Your task to perform on an android device: toggle sleep mode Image 0: 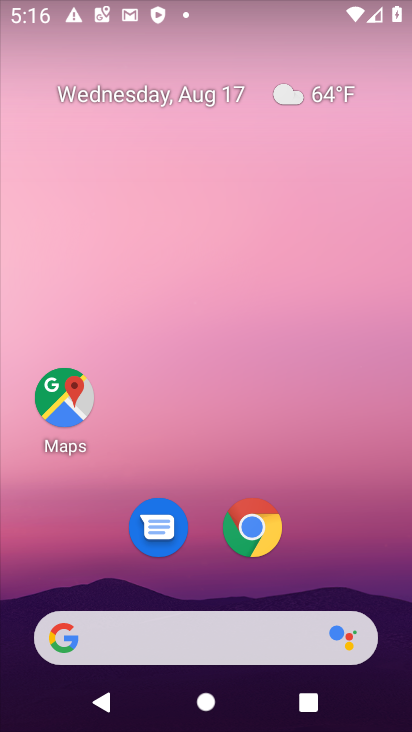
Step 0: drag from (180, 572) to (155, 170)
Your task to perform on an android device: toggle sleep mode Image 1: 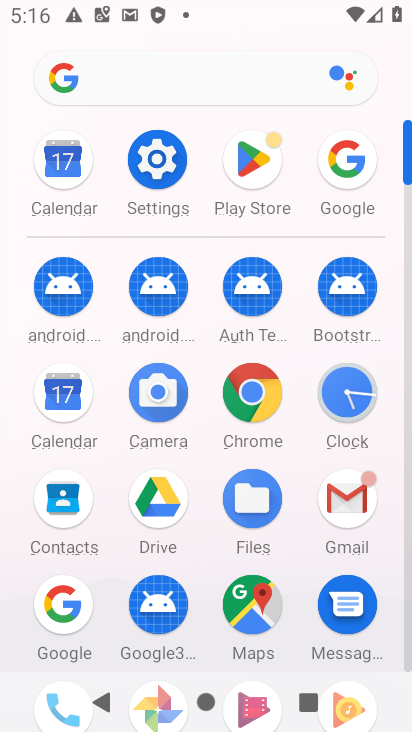
Step 1: click (146, 165)
Your task to perform on an android device: toggle sleep mode Image 2: 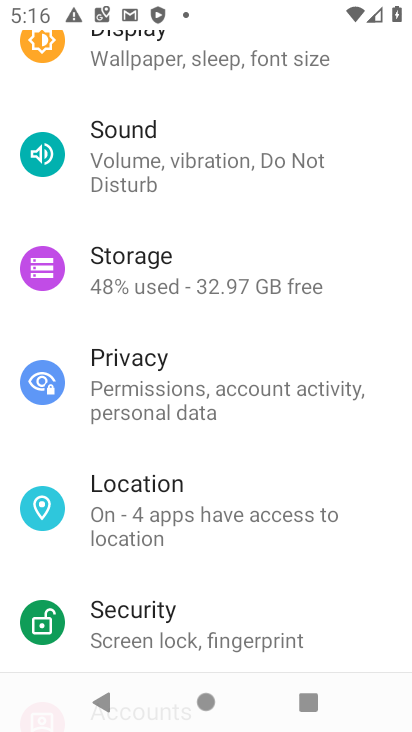
Step 2: drag from (165, 121) to (162, 578)
Your task to perform on an android device: toggle sleep mode Image 3: 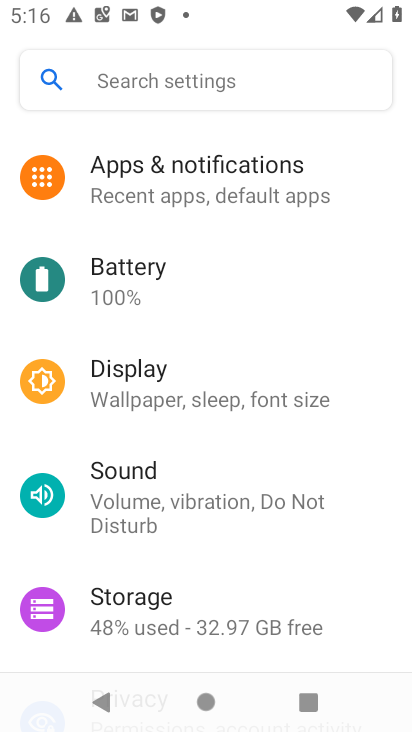
Step 3: click (140, 393)
Your task to perform on an android device: toggle sleep mode Image 4: 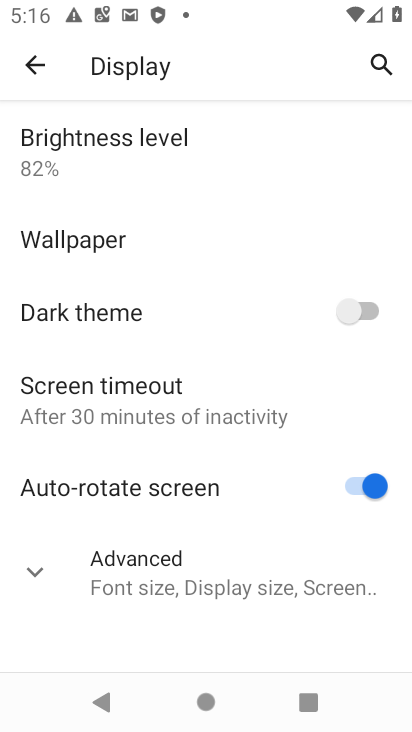
Step 4: click (100, 571)
Your task to perform on an android device: toggle sleep mode Image 5: 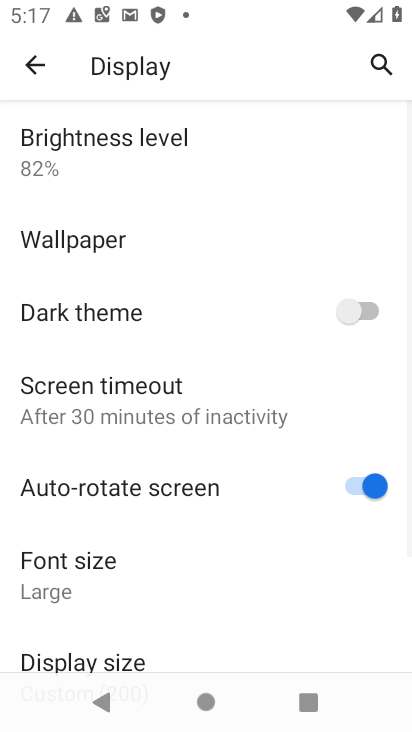
Step 5: drag from (115, 632) to (84, 289)
Your task to perform on an android device: toggle sleep mode Image 6: 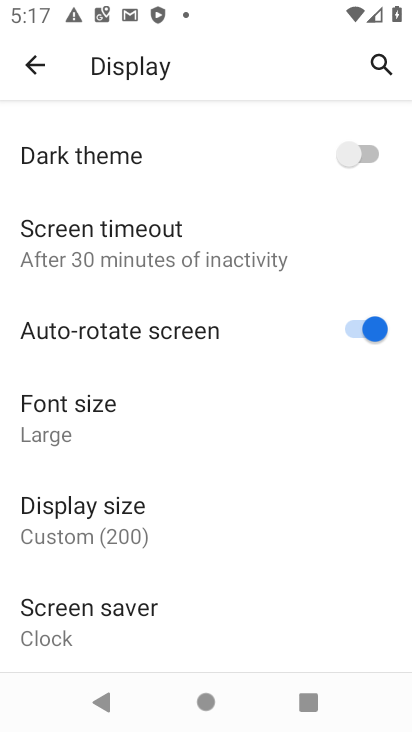
Step 6: click (85, 240)
Your task to perform on an android device: toggle sleep mode Image 7: 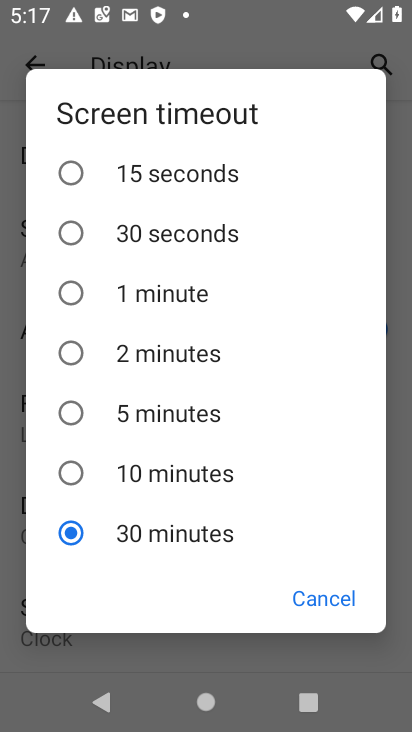
Step 7: click (130, 231)
Your task to perform on an android device: toggle sleep mode Image 8: 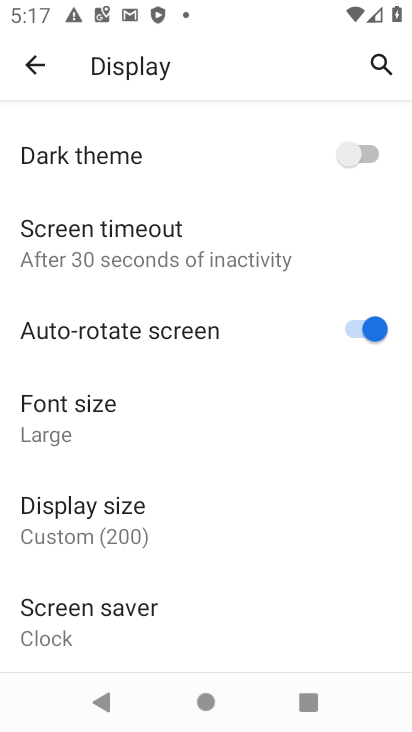
Step 8: task complete